Your task to perform on an android device: Go to sound settings Image 0: 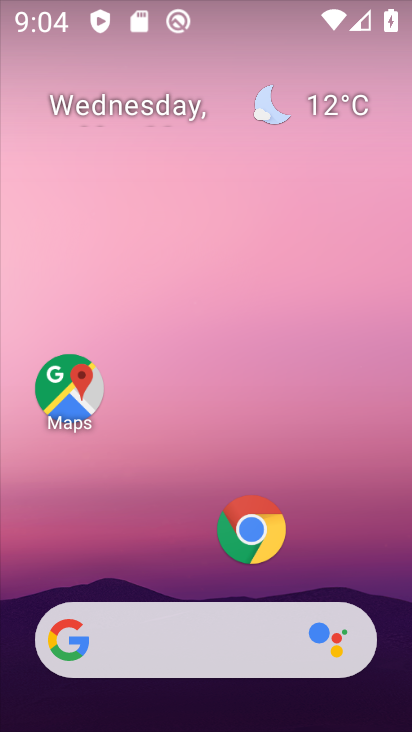
Step 0: drag from (238, 597) to (237, 162)
Your task to perform on an android device: Go to sound settings Image 1: 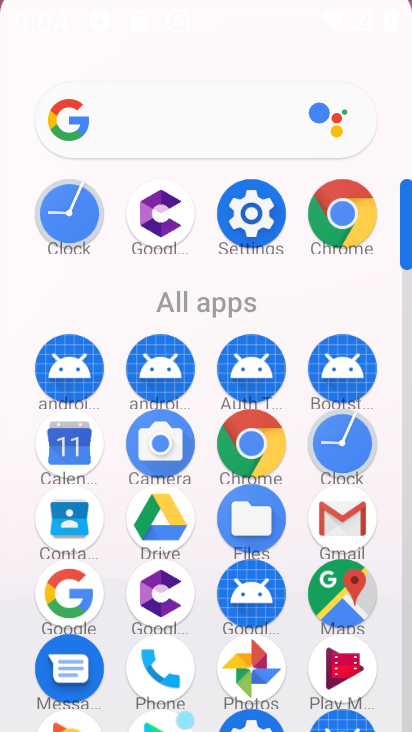
Step 1: drag from (220, 595) to (234, 191)
Your task to perform on an android device: Go to sound settings Image 2: 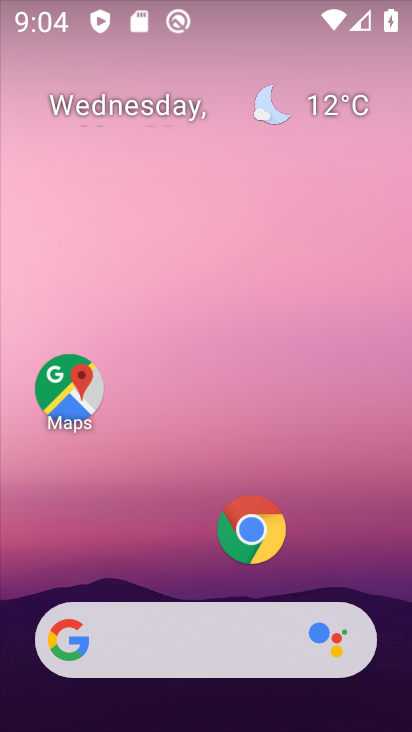
Step 2: drag from (235, 596) to (251, 135)
Your task to perform on an android device: Go to sound settings Image 3: 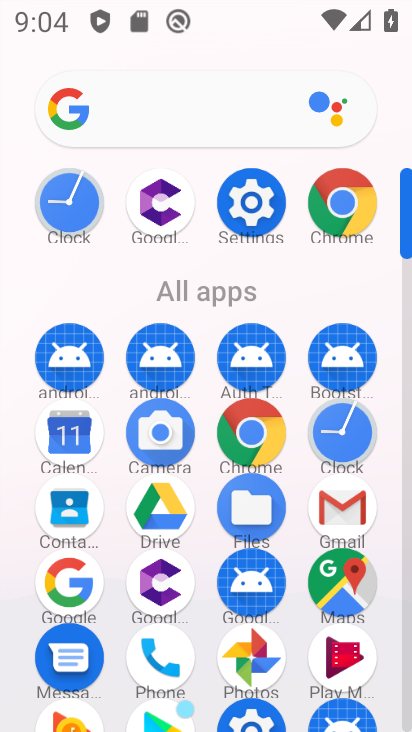
Step 3: click (240, 211)
Your task to perform on an android device: Go to sound settings Image 4: 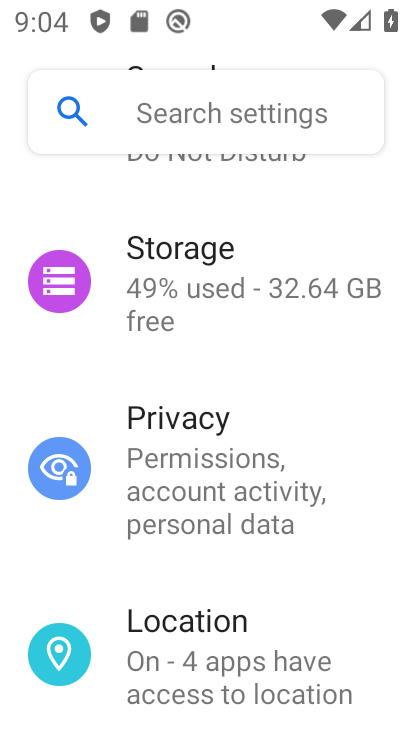
Step 4: drag from (258, 228) to (275, 654)
Your task to perform on an android device: Go to sound settings Image 5: 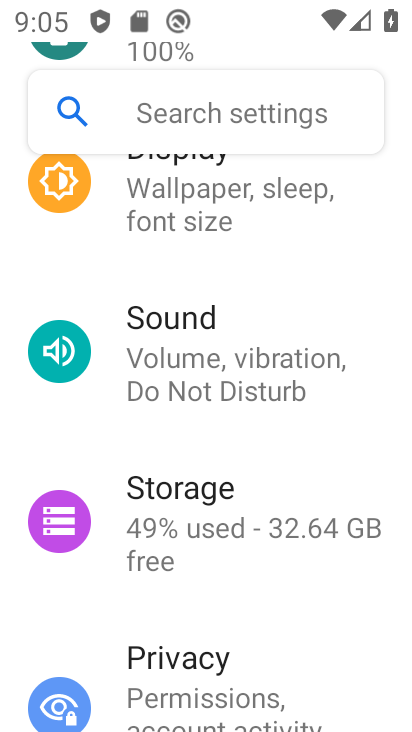
Step 5: click (220, 373)
Your task to perform on an android device: Go to sound settings Image 6: 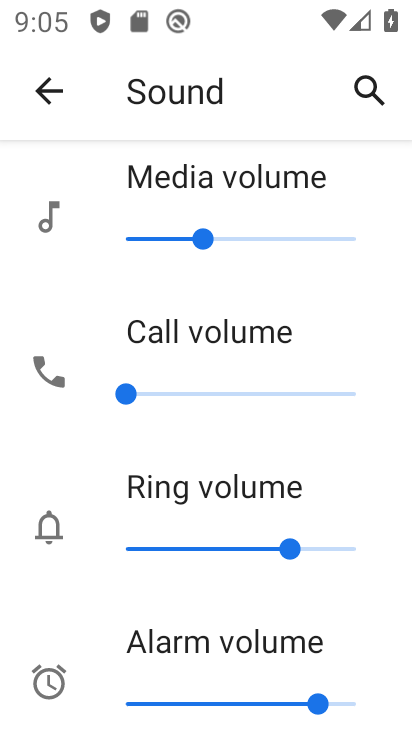
Step 6: task complete